Your task to perform on an android device: Open settings on Google Maps Image 0: 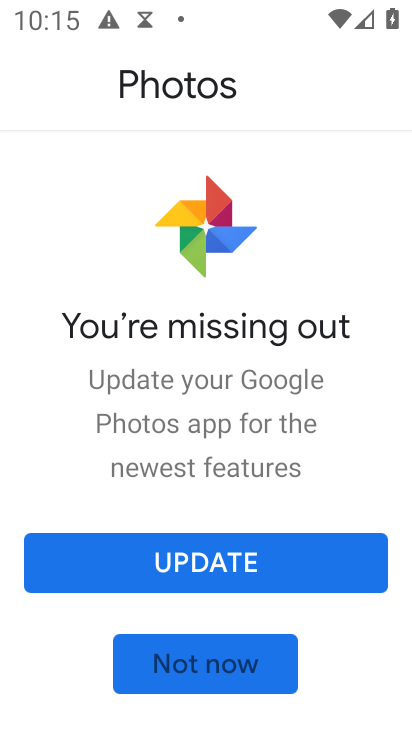
Step 0: press back button
Your task to perform on an android device: Open settings on Google Maps Image 1: 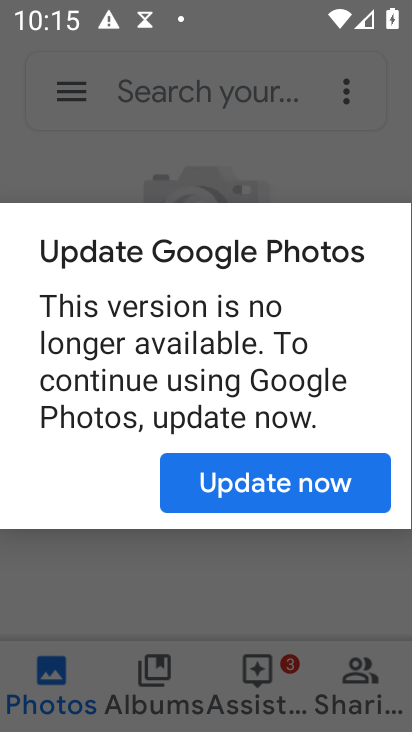
Step 1: press home button
Your task to perform on an android device: Open settings on Google Maps Image 2: 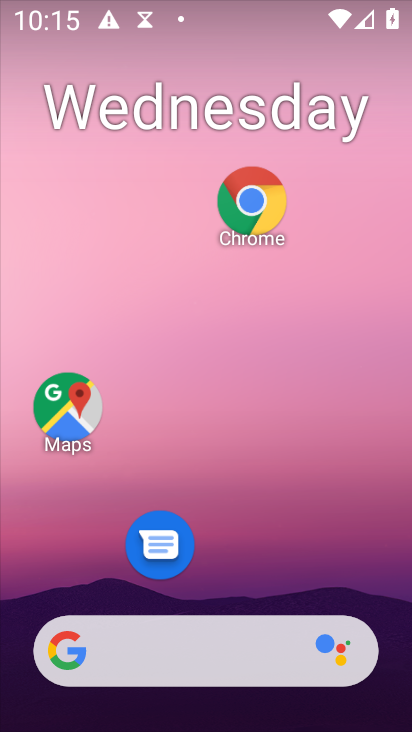
Step 2: click (65, 405)
Your task to perform on an android device: Open settings on Google Maps Image 3: 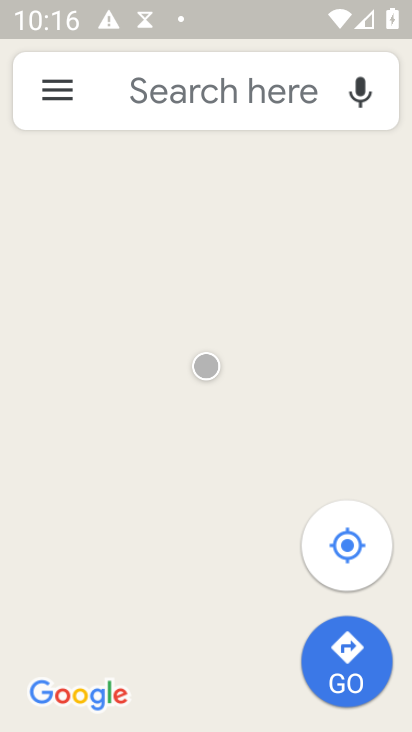
Step 3: click (59, 87)
Your task to perform on an android device: Open settings on Google Maps Image 4: 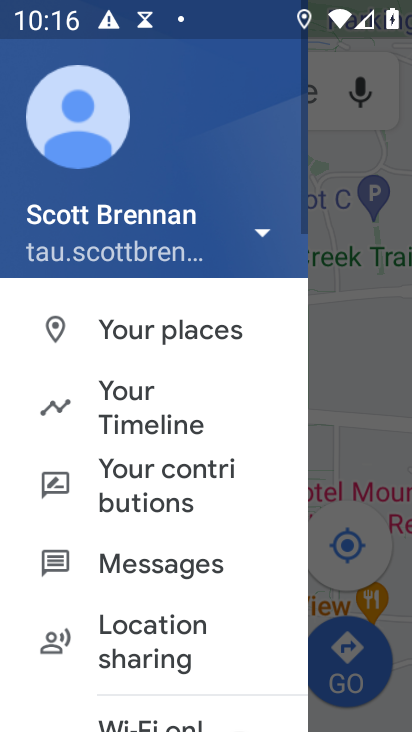
Step 4: drag from (166, 570) to (164, 178)
Your task to perform on an android device: Open settings on Google Maps Image 5: 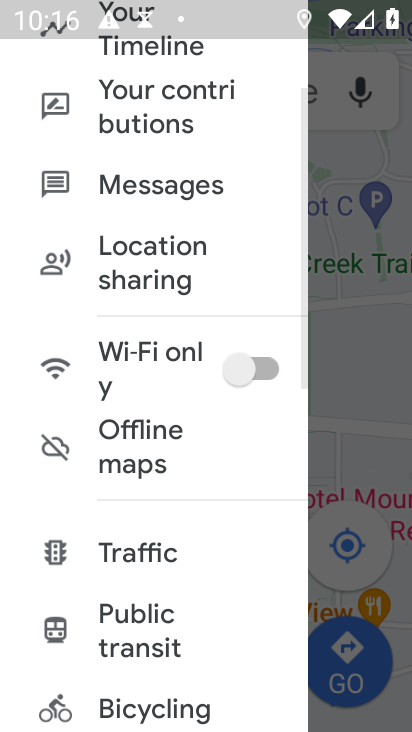
Step 5: drag from (158, 486) to (134, 7)
Your task to perform on an android device: Open settings on Google Maps Image 6: 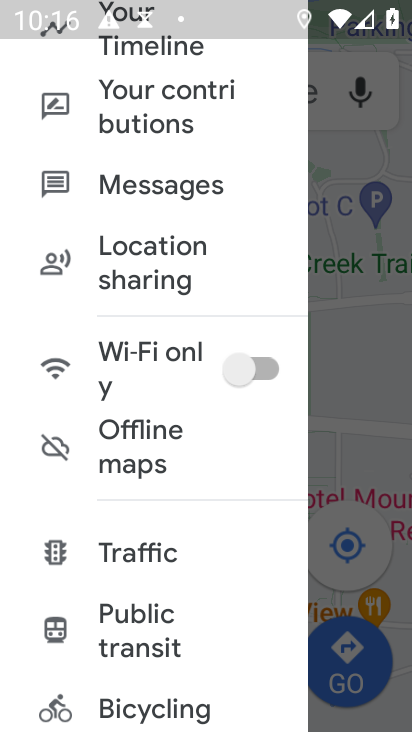
Step 6: drag from (127, 550) to (133, 255)
Your task to perform on an android device: Open settings on Google Maps Image 7: 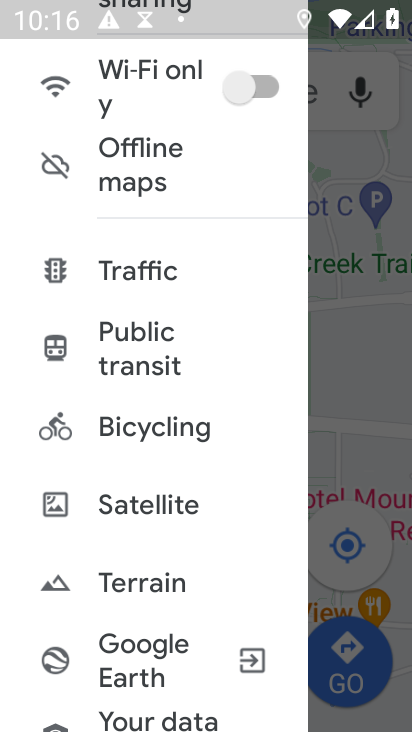
Step 7: drag from (80, 687) to (79, 197)
Your task to perform on an android device: Open settings on Google Maps Image 8: 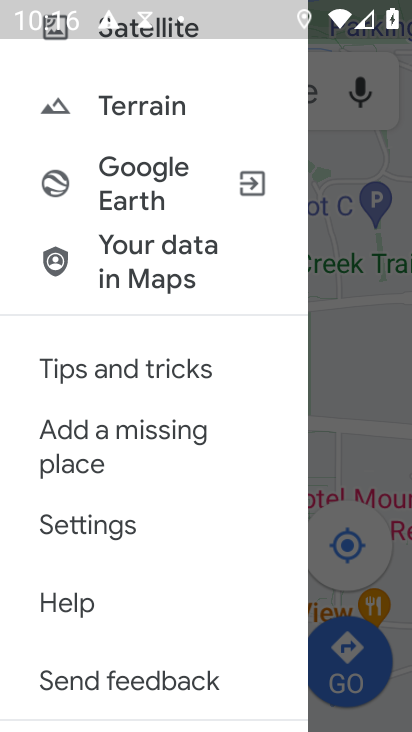
Step 8: click (142, 532)
Your task to perform on an android device: Open settings on Google Maps Image 9: 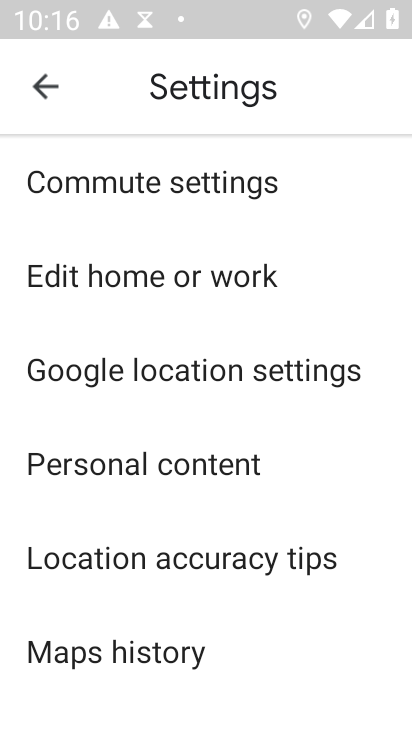
Step 9: task complete